Your task to perform on an android device: Turn off the flashlight Image 0: 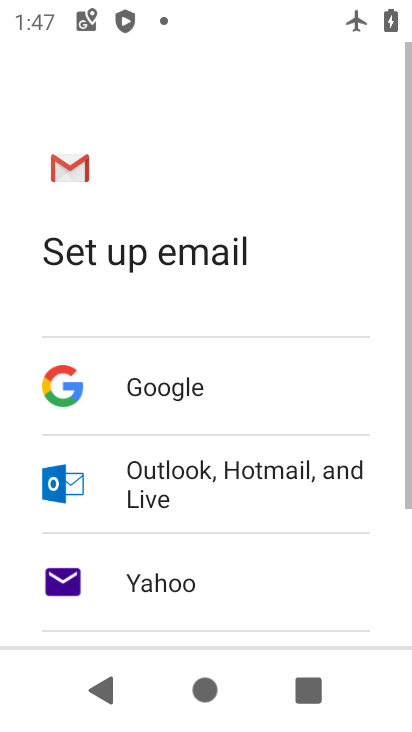
Step 0: press home button
Your task to perform on an android device: Turn off the flashlight Image 1: 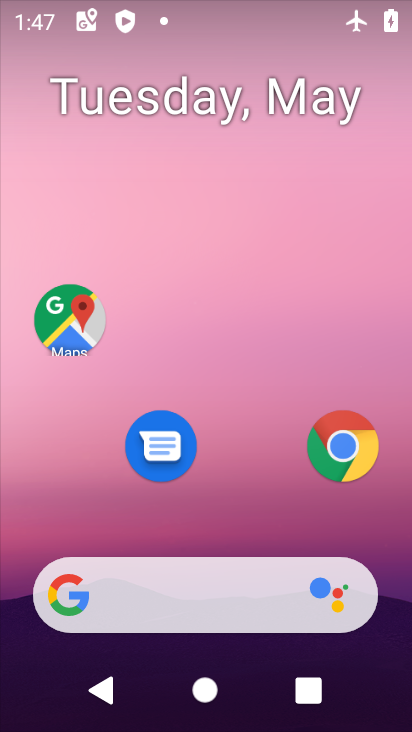
Step 1: drag from (253, 536) to (173, 10)
Your task to perform on an android device: Turn off the flashlight Image 2: 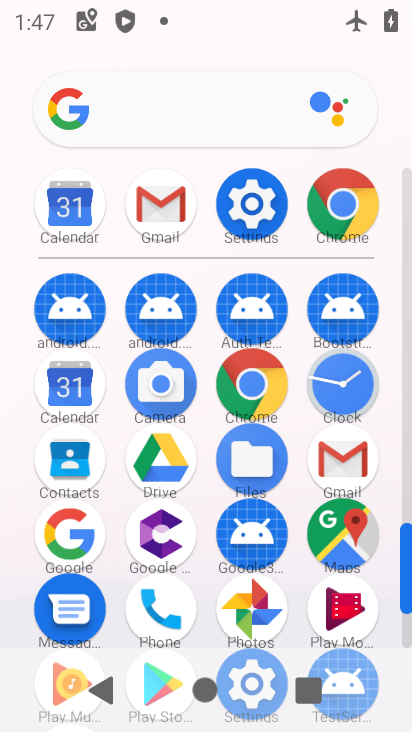
Step 2: click (267, 196)
Your task to perform on an android device: Turn off the flashlight Image 3: 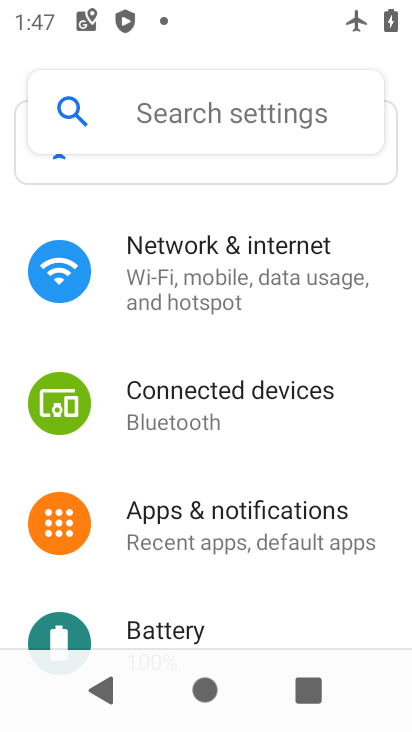
Step 3: task complete